Your task to perform on an android device: Open maps Image 0: 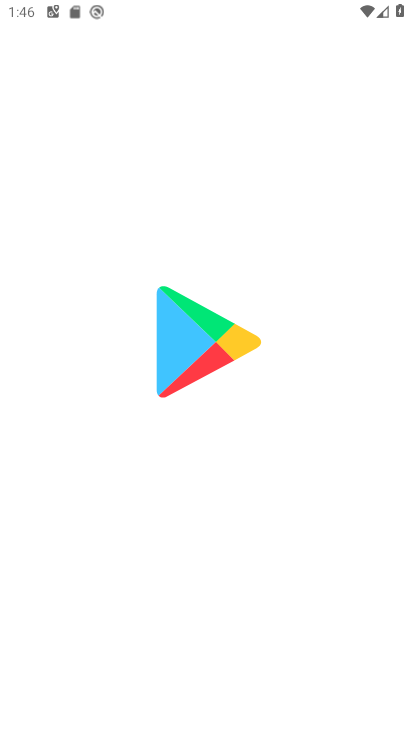
Step 0: drag from (209, 619) to (298, 232)
Your task to perform on an android device: Open maps Image 1: 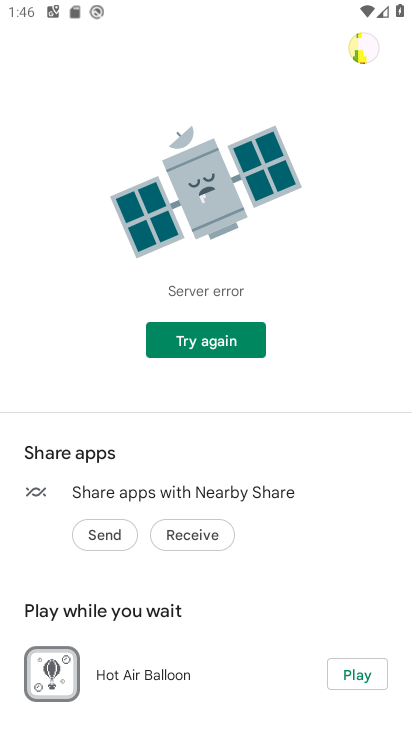
Step 1: press back button
Your task to perform on an android device: Open maps Image 2: 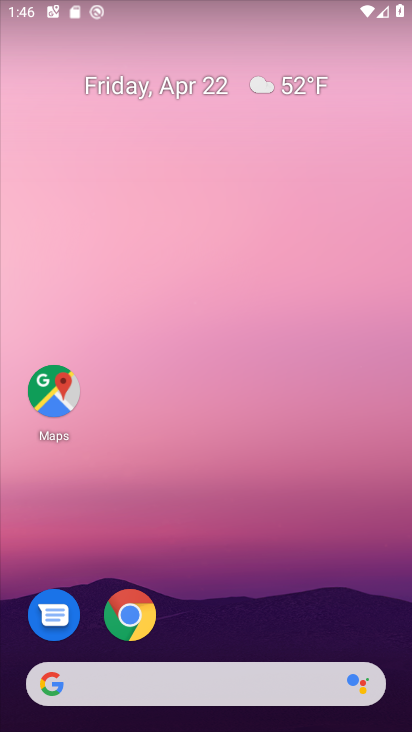
Step 2: click (66, 386)
Your task to perform on an android device: Open maps Image 3: 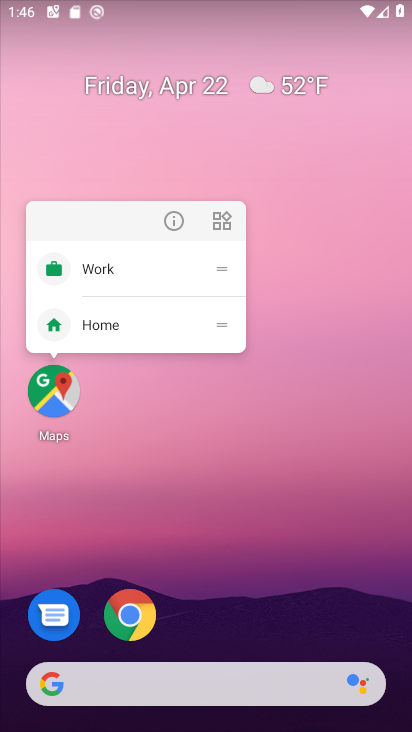
Step 3: click (62, 387)
Your task to perform on an android device: Open maps Image 4: 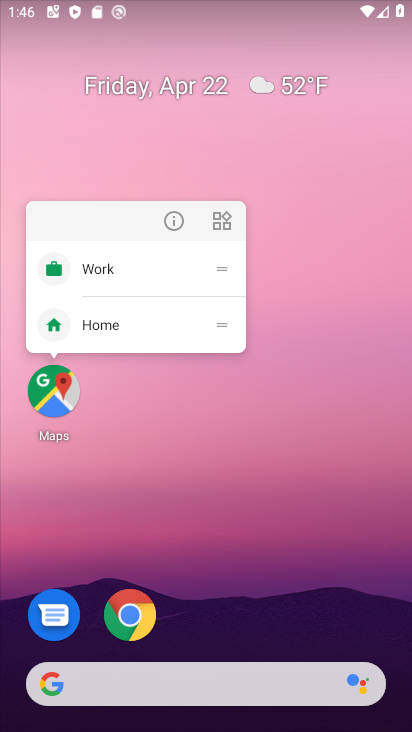
Step 4: click (51, 400)
Your task to perform on an android device: Open maps Image 5: 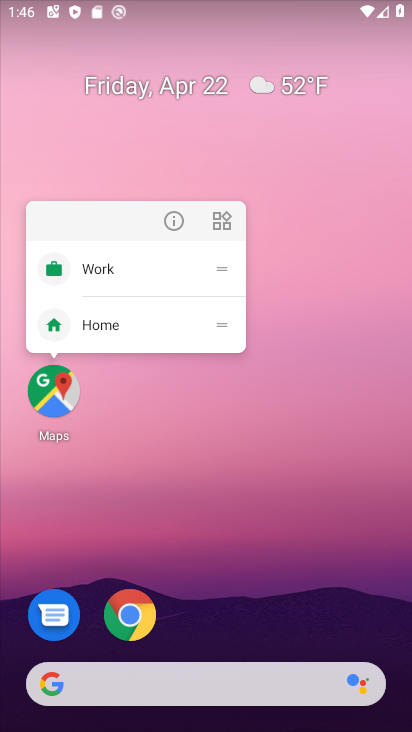
Step 5: click (53, 402)
Your task to perform on an android device: Open maps Image 6: 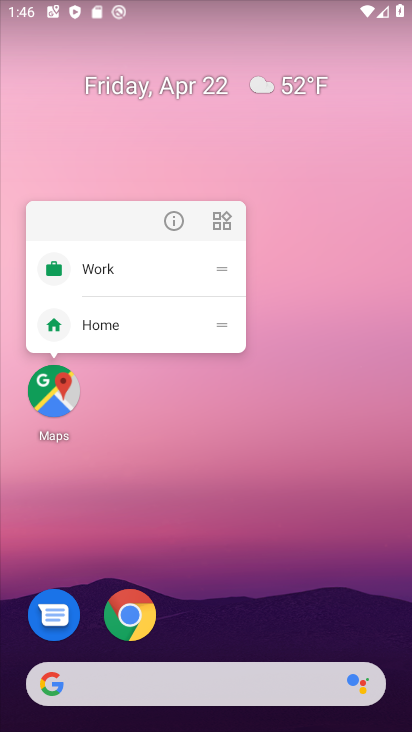
Step 6: drag from (215, 664) to (345, 97)
Your task to perform on an android device: Open maps Image 7: 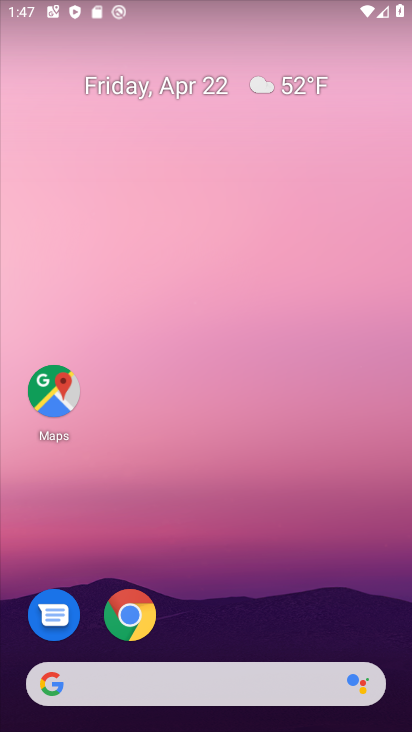
Step 7: drag from (221, 662) to (336, 76)
Your task to perform on an android device: Open maps Image 8: 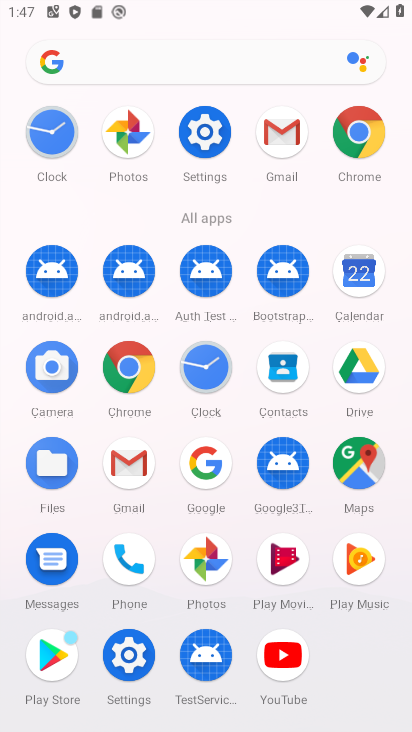
Step 8: click (354, 476)
Your task to perform on an android device: Open maps Image 9: 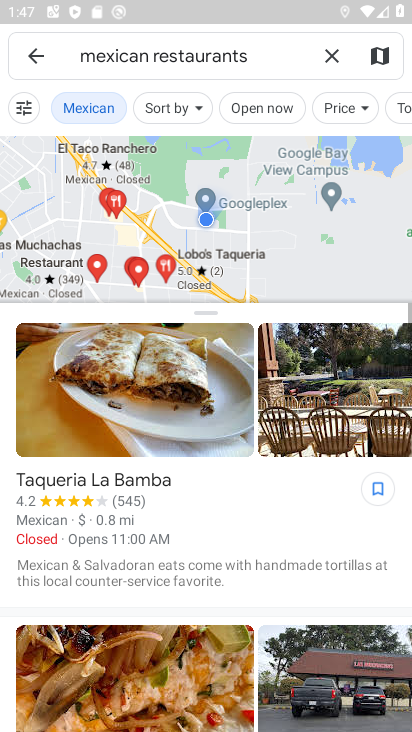
Step 9: task complete